Your task to perform on an android device: turn off location Image 0: 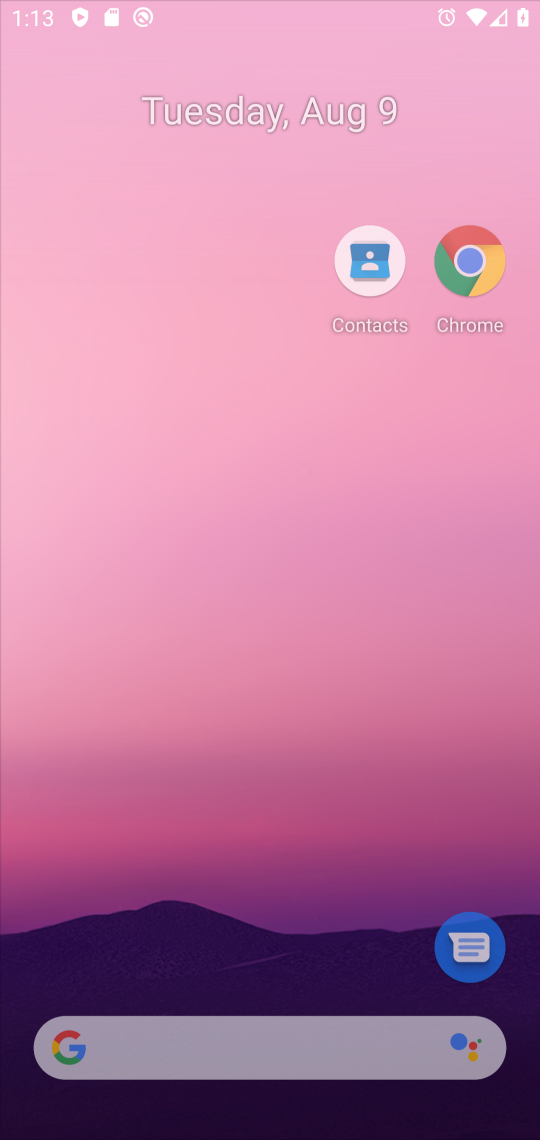
Step 0: click (370, 224)
Your task to perform on an android device: turn off location Image 1: 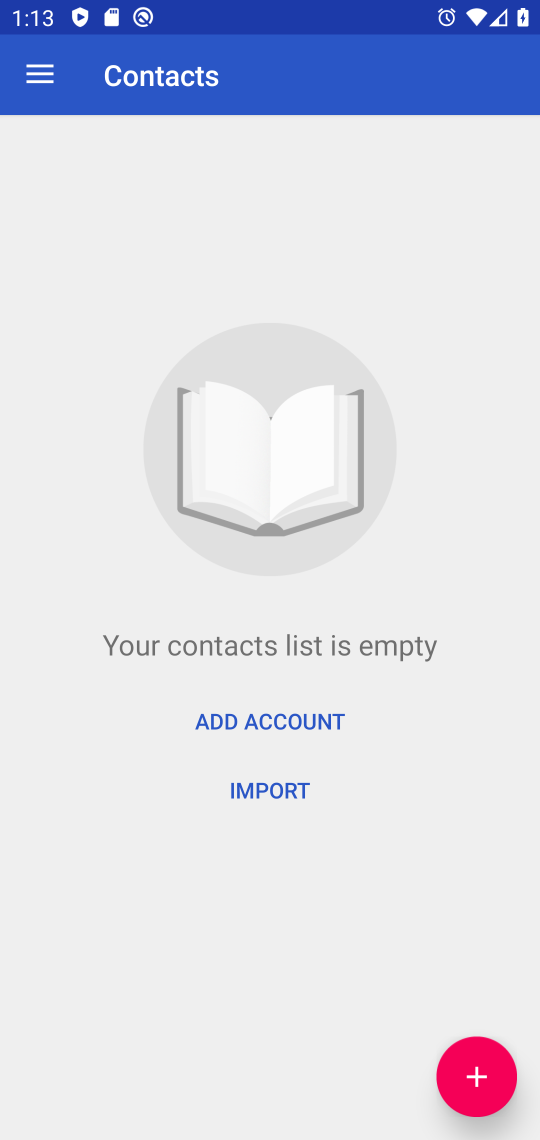
Step 1: drag from (319, 949) to (392, 368)
Your task to perform on an android device: turn off location Image 2: 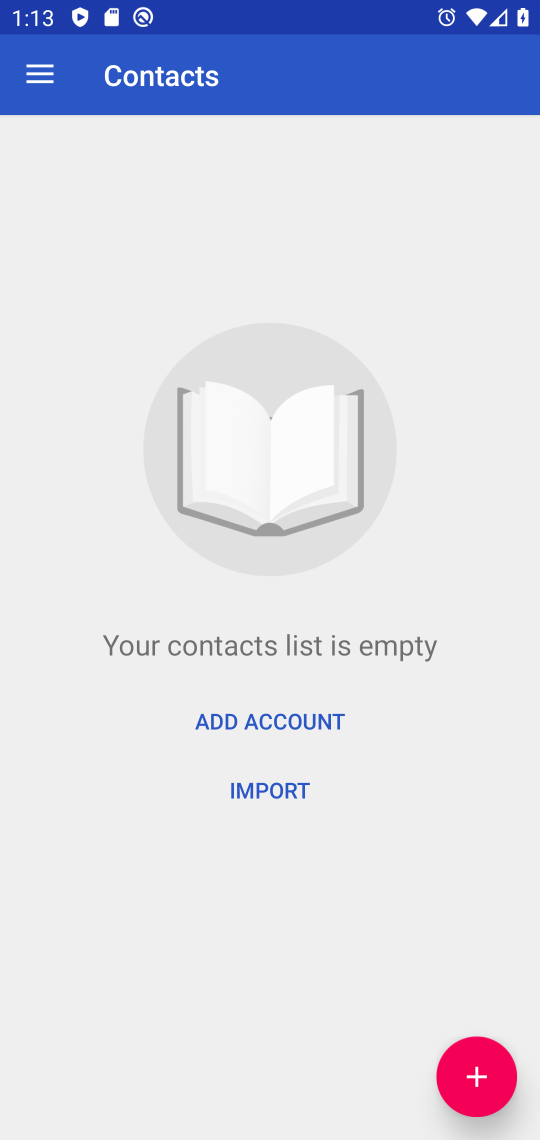
Step 2: drag from (336, 931) to (422, 407)
Your task to perform on an android device: turn off location Image 3: 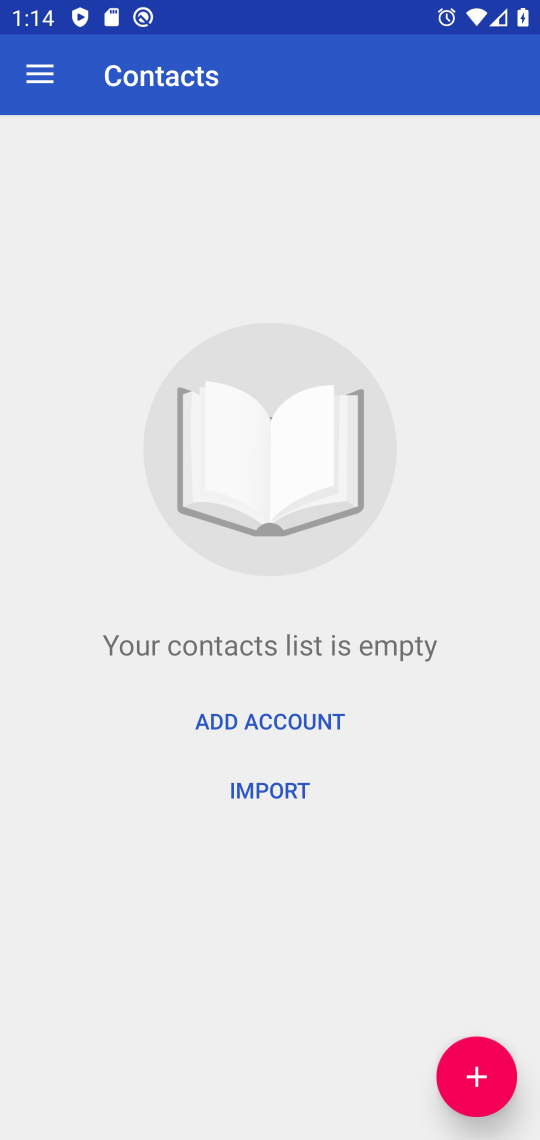
Step 3: drag from (373, 1014) to (417, 403)
Your task to perform on an android device: turn off location Image 4: 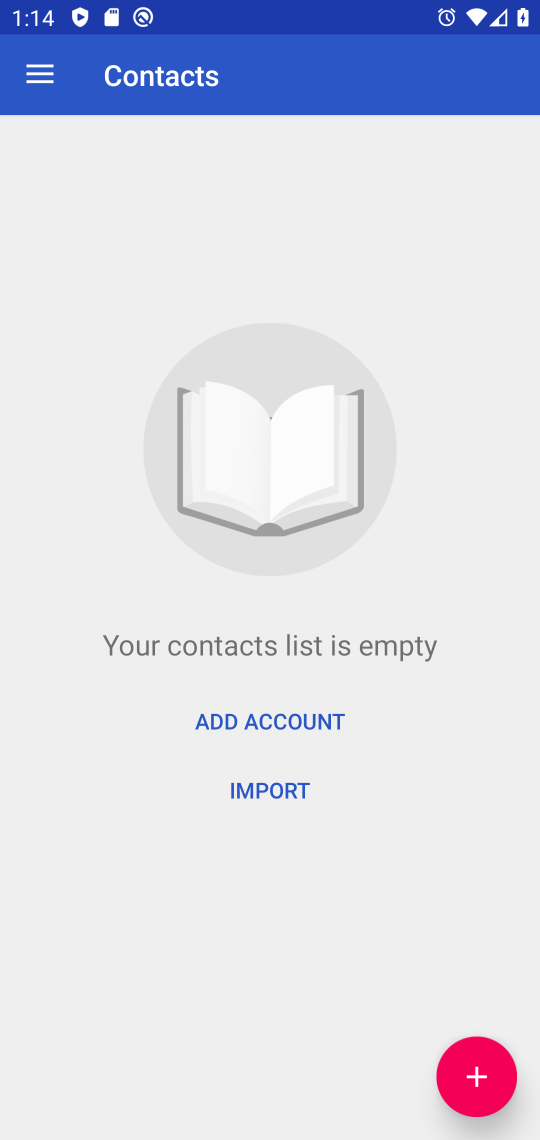
Step 4: drag from (325, 708) to (330, 261)
Your task to perform on an android device: turn off location Image 5: 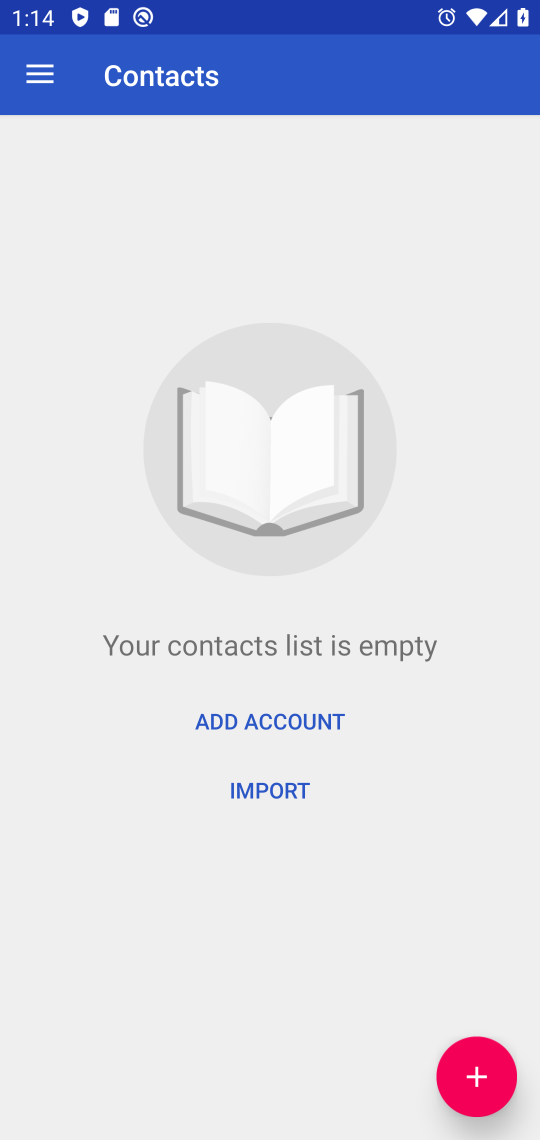
Step 5: drag from (235, 941) to (333, 516)
Your task to perform on an android device: turn off location Image 6: 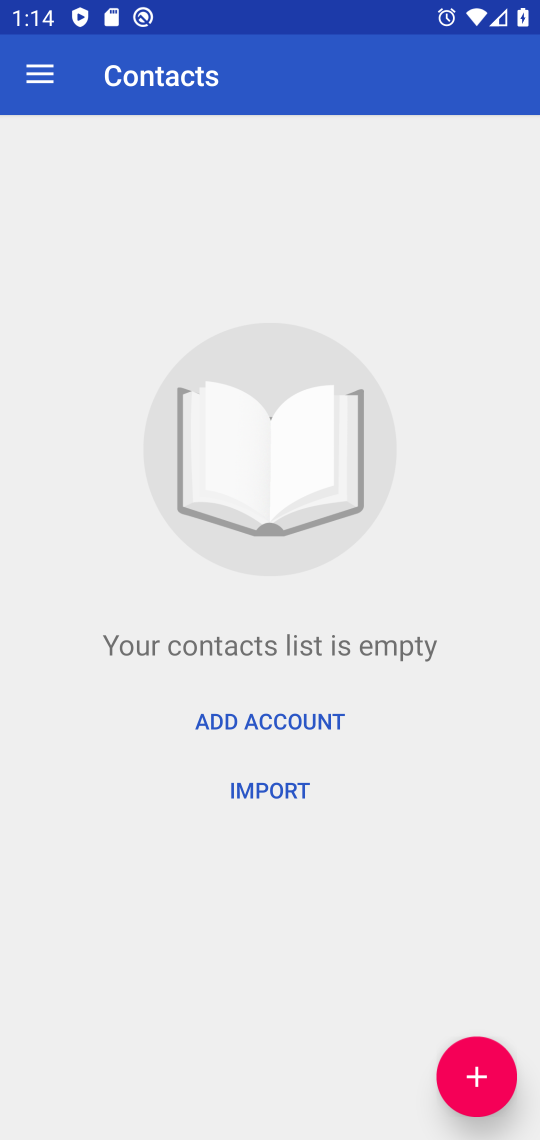
Step 6: drag from (35, 39) to (33, 94)
Your task to perform on an android device: turn off location Image 7: 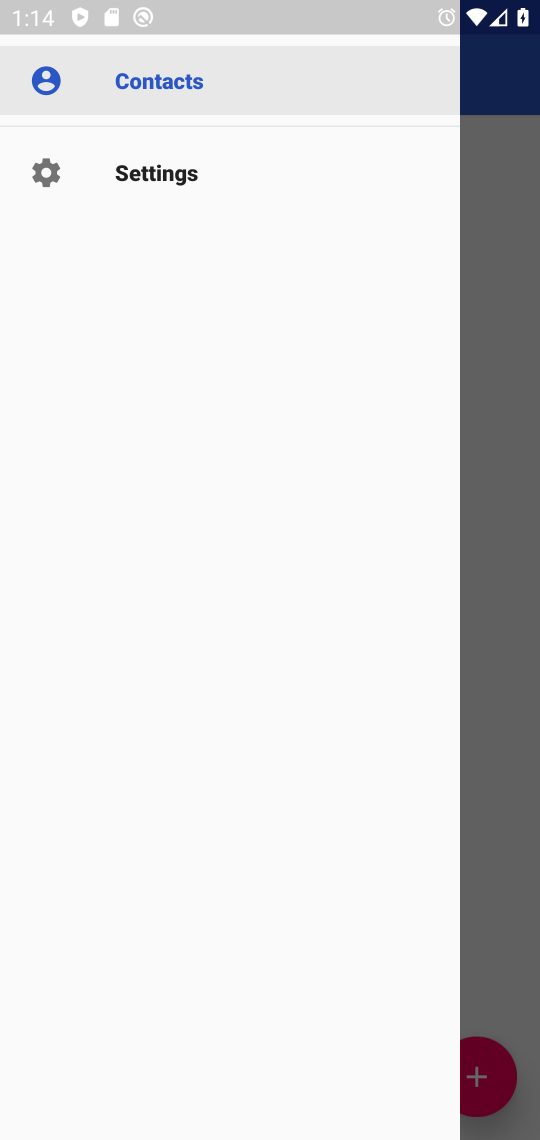
Step 7: drag from (328, 582) to (328, 394)
Your task to perform on an android device: turn off location Image 8: 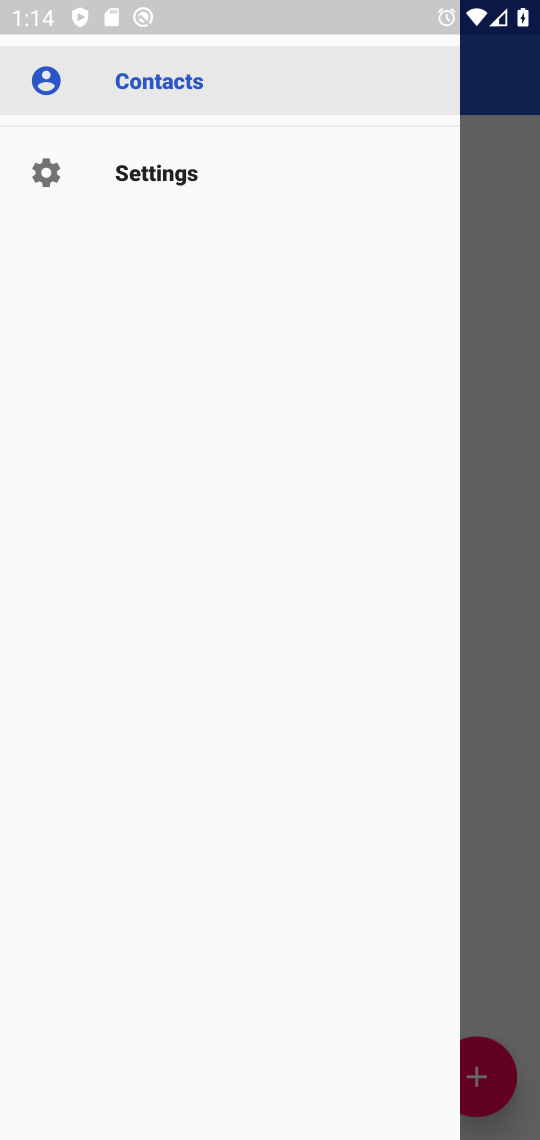
Step 8: click (506, 477)
Your task to perform on an android device: turn off location Image 9: 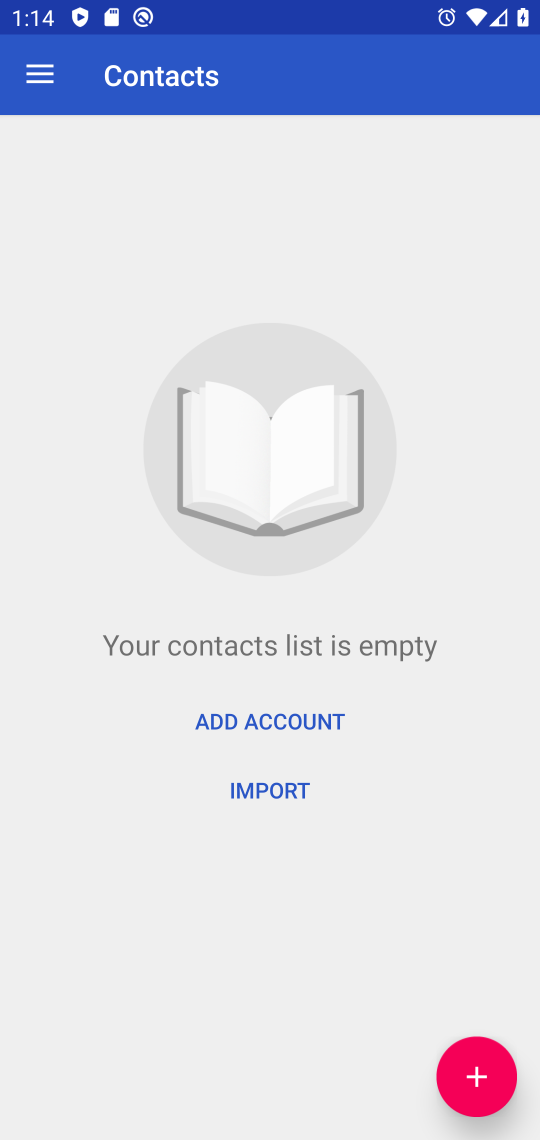
Step 9: drag from (328, 672) to (354, 342)
Your task to perform on an android device: turn off location Image 10: 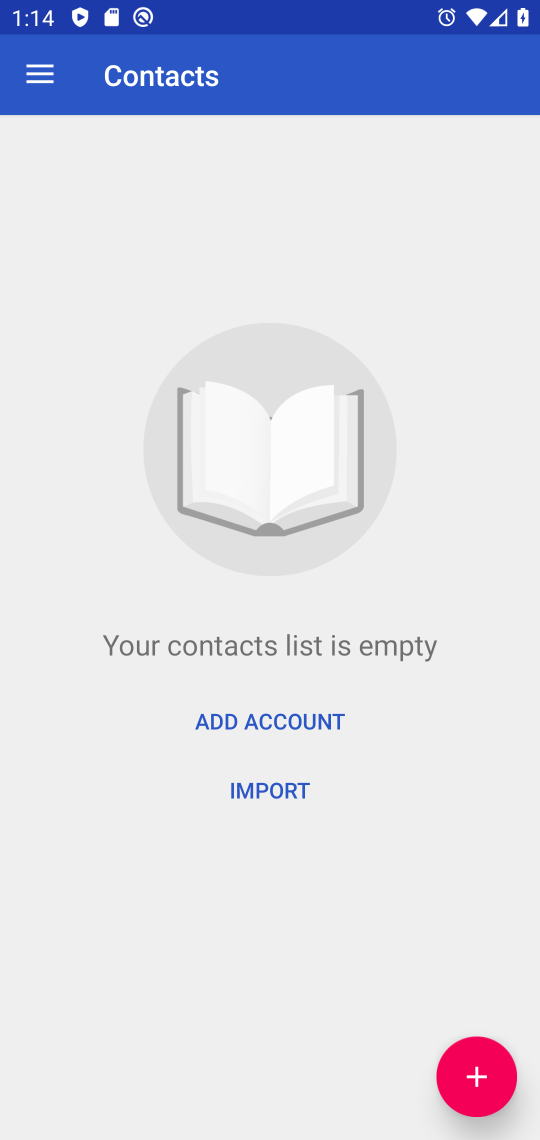
Step 10: drag from (280, 861) to (290, 564)
Your task to perform on an android device: turn off location Image 11: 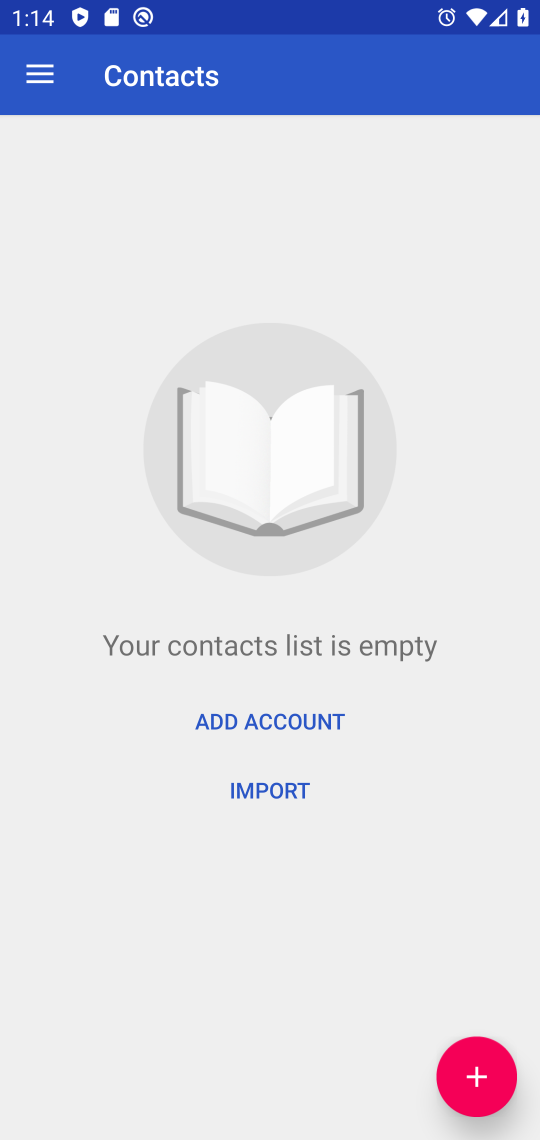
Step 11: press home button
Your task to perform on an android device: turn off location Image 12: 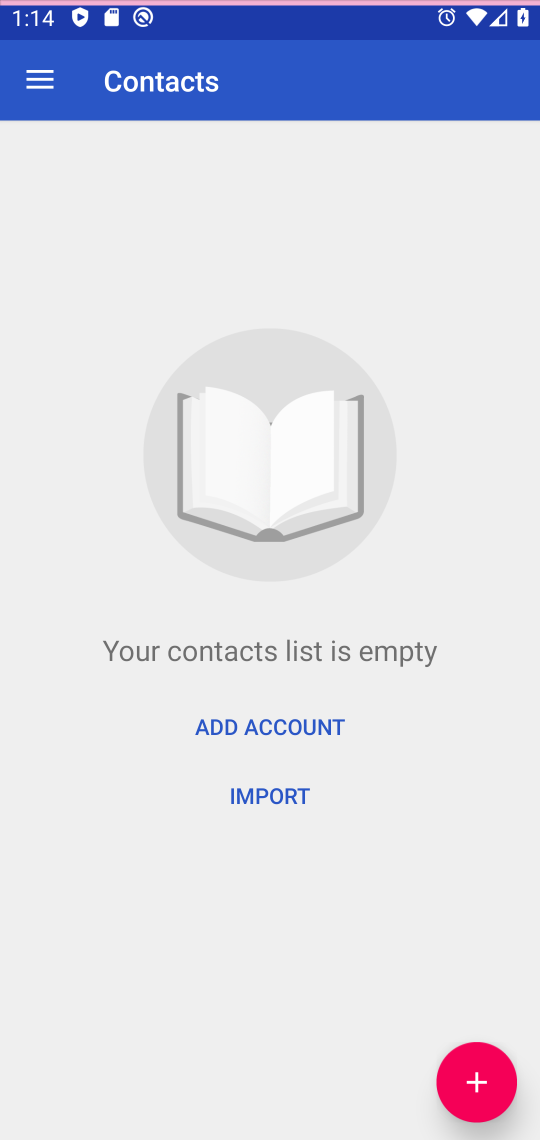
Step 12: drag from (300, 896) to (432, 150)
Your task to perform on an android device: turn off location Image 13: 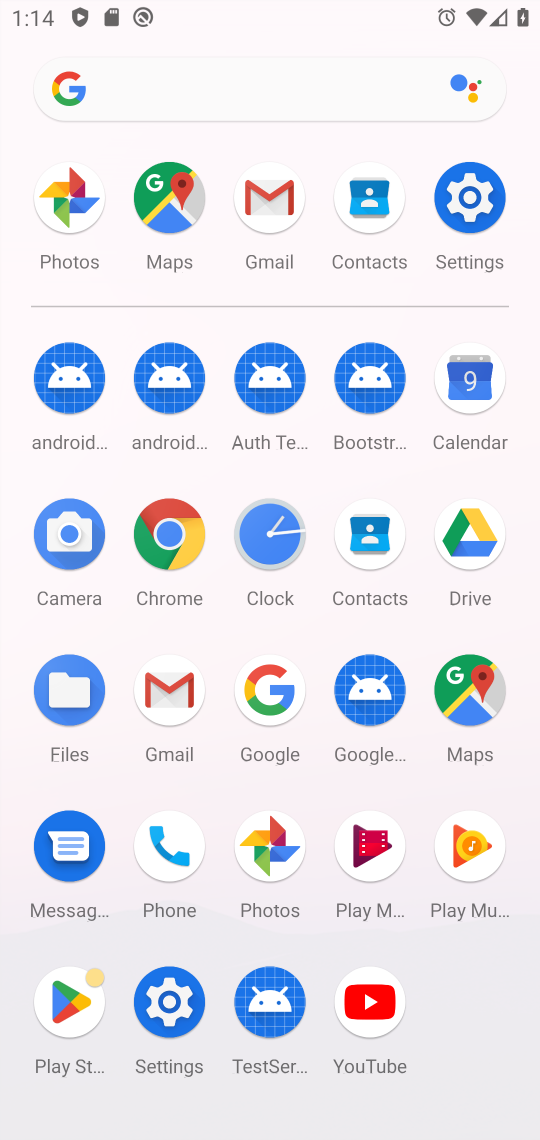
Step 13: drag from (311, 889) to (326, 196)
Your task to perform on an android device: turn off location Image 14: 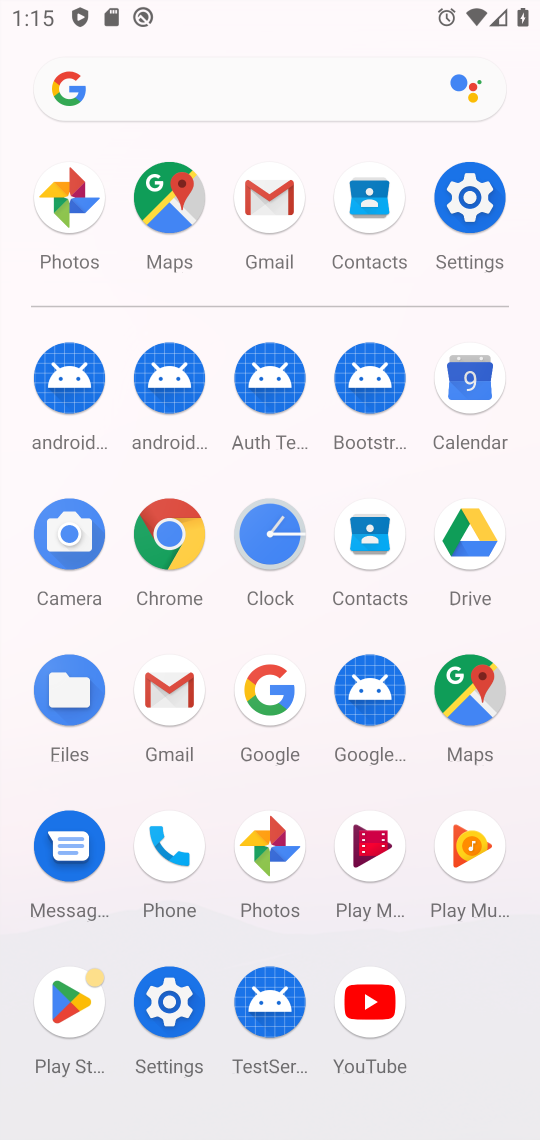
Step 14: click (142, 992)
Your task to perform on an android device: turn off location Image 15: 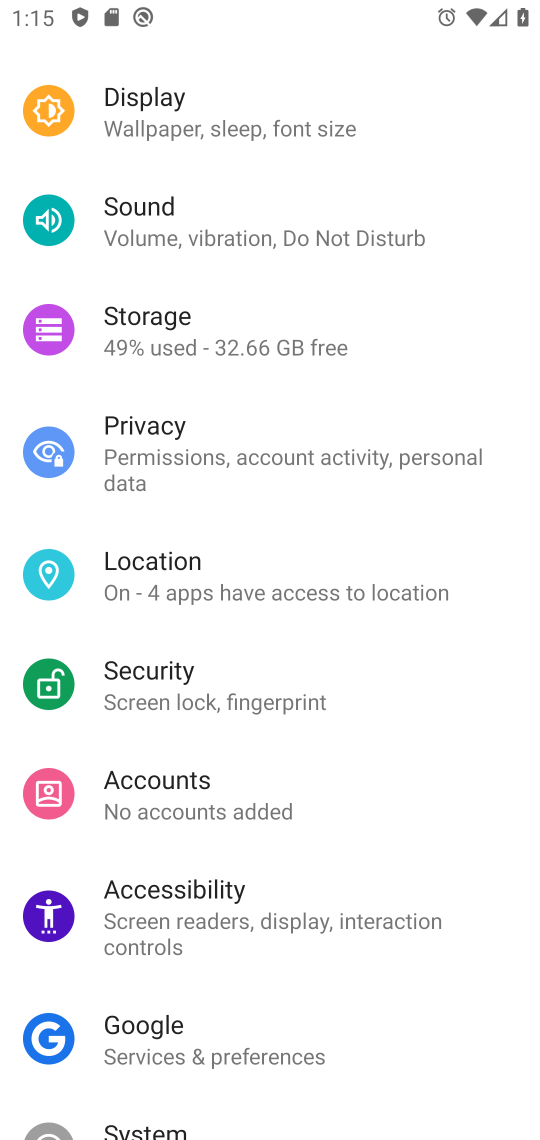
Step 15: drag from (251, 991) to (371, 110)
Your task to perform on an android device: turn off location Image 16: 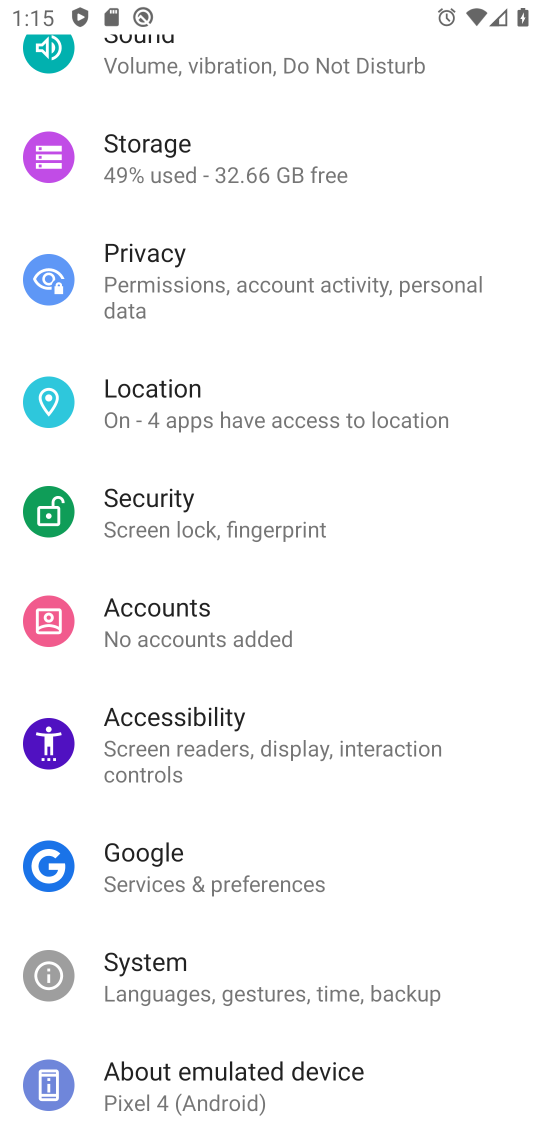
Step 16: click (214, 399)
Your task to perform on an android device: turn off location Image 17: 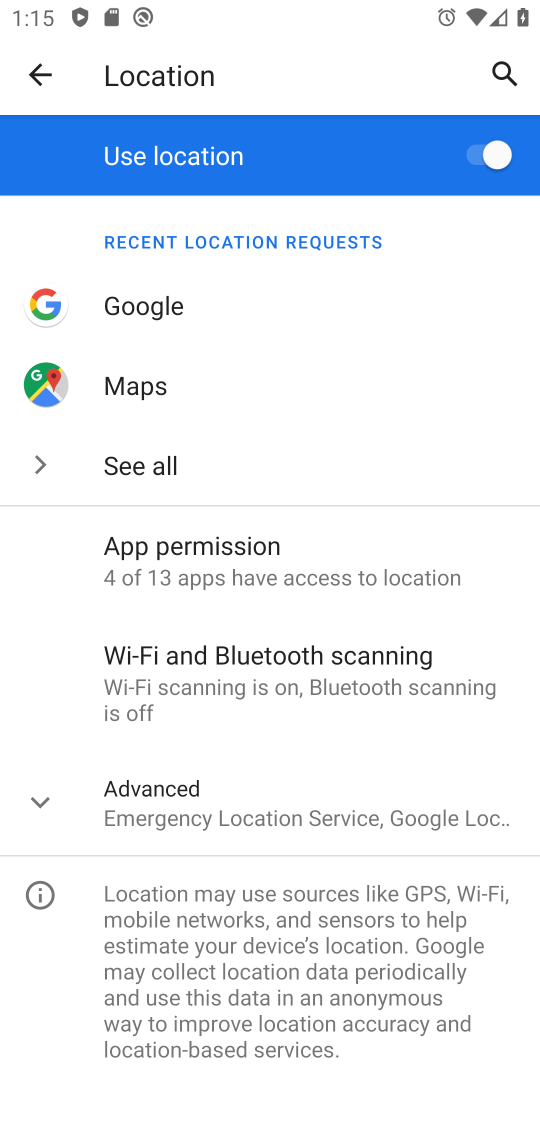
Step 17: click (262, 811)
Your task to perform on an android device: turn off location Image 18: 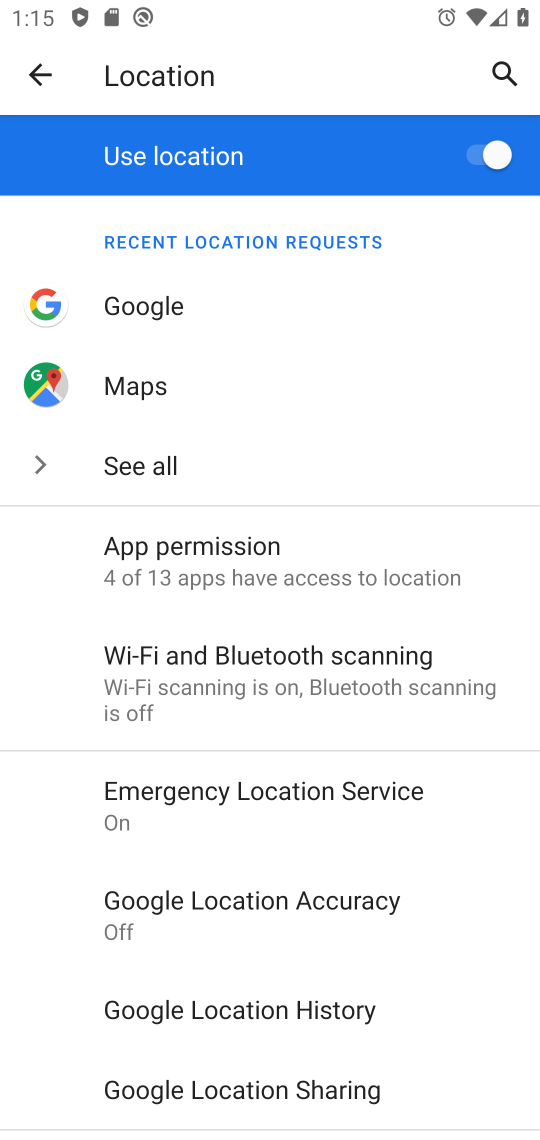
Step 18: click (479, 160)
Your task to perform on an android device: turn off location Image 19: 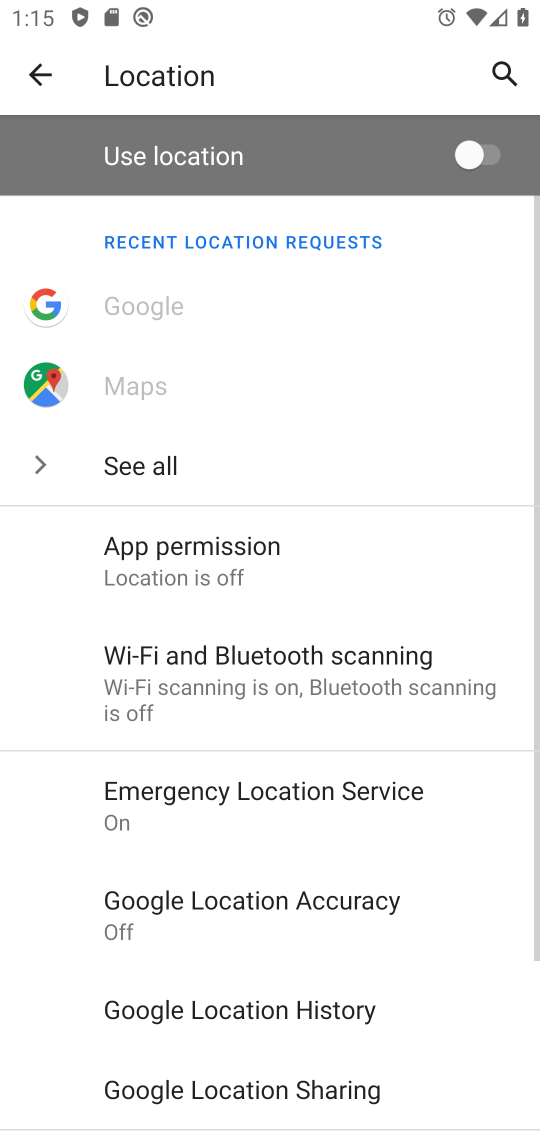
Step 19: task complete